Your task to perform on an android device: Go to ESPN.com Image 0: 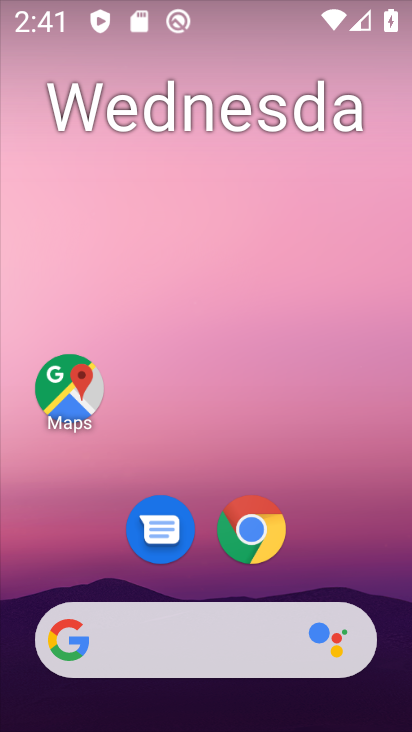
Step 0: click (248, 528)
Your task to perform on an android device: Go to ESPN.com Image 1: 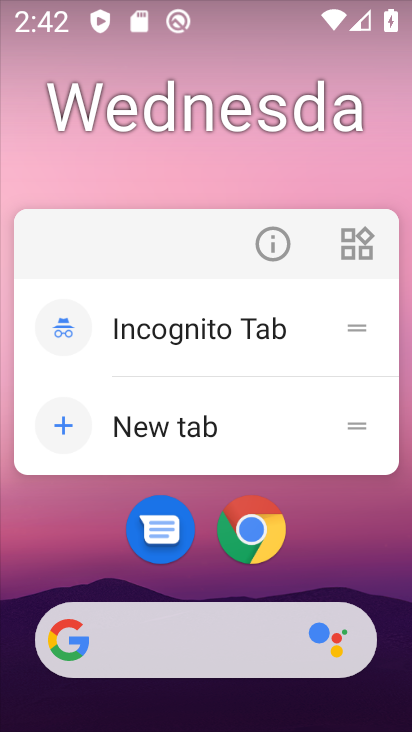
Step 1: click (248, 528)
Your task to perform on an android device: Go to ESPN.com Image 2: 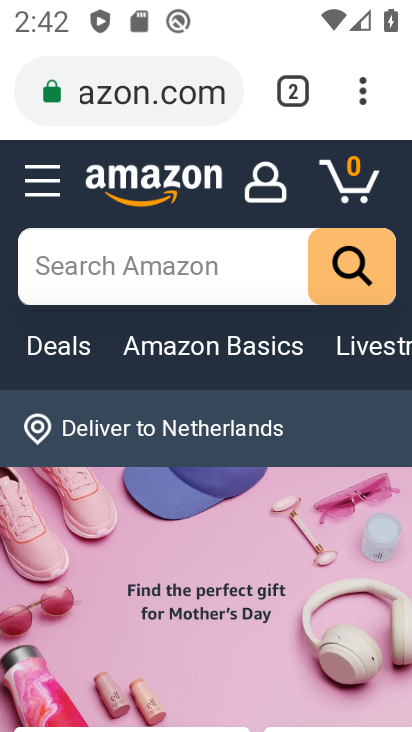
Step 2: click (158, 87)
Your task to perform on an android device: Go to ESPN.com Image 3: 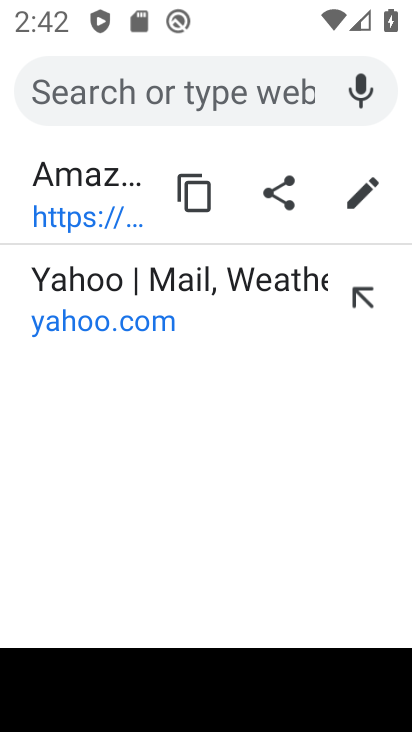
Step 3: type "ESPN.com"
Your task to perform on an android device: Go to ESPN.com Image 4: 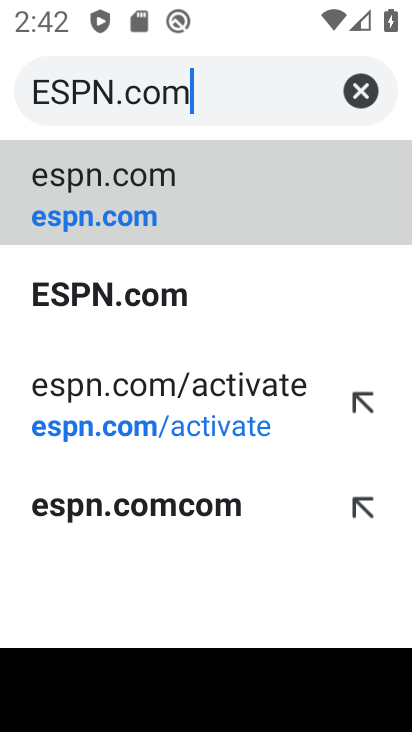
Step 4: click (128, 200)
Your task to perform on an android device: Go to ESPN.com Image 5: 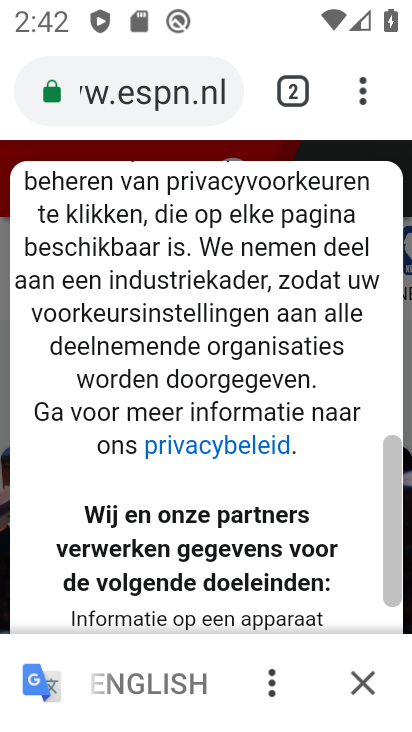
Step 5: task complete